Your task to perform on an android device: Check the weather Image 0: 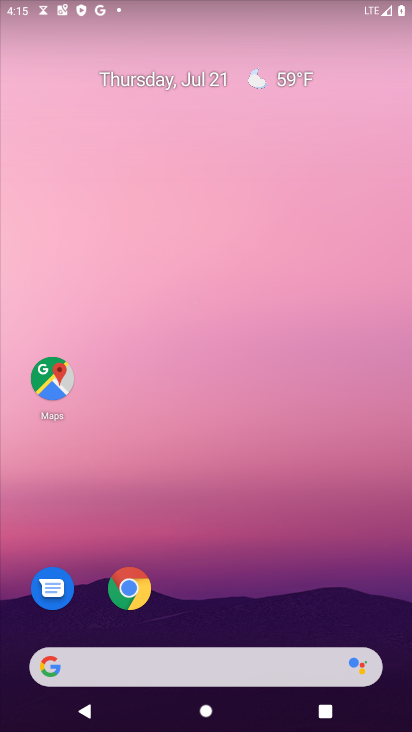
Step 0: click (256, 77)
Your task to perform on an android device: Check the weather Image 1: 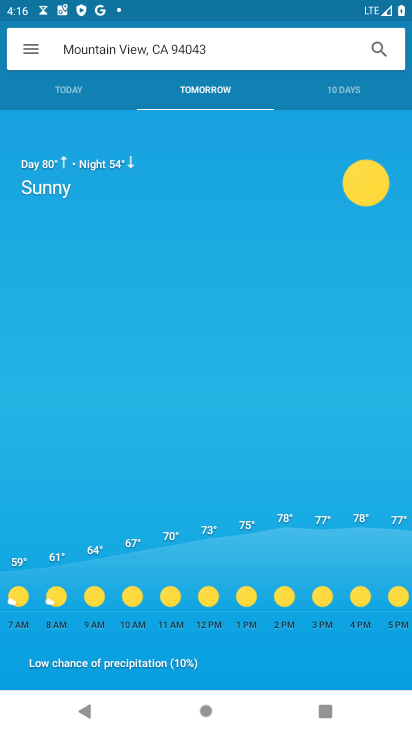
Step 1: task complete